Your task to perform on an android device: Open Google Chrome and click the shortcut for Amazon.com Image 0: 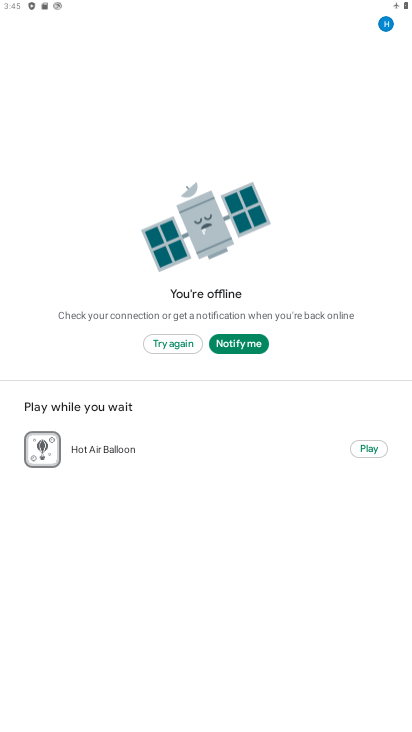
Step 0: press home button
Your task to perform on an android device: Open Google Chrome and click the shortcut for Amazon.com Image 1: 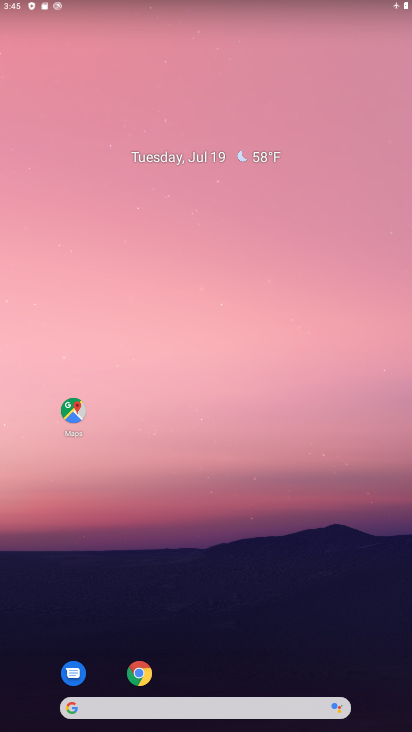
Step 1: click (146, 669)
Your task to perform on an android device: Open Google Chrome and click the shortcut for Amazon.com Image 2: 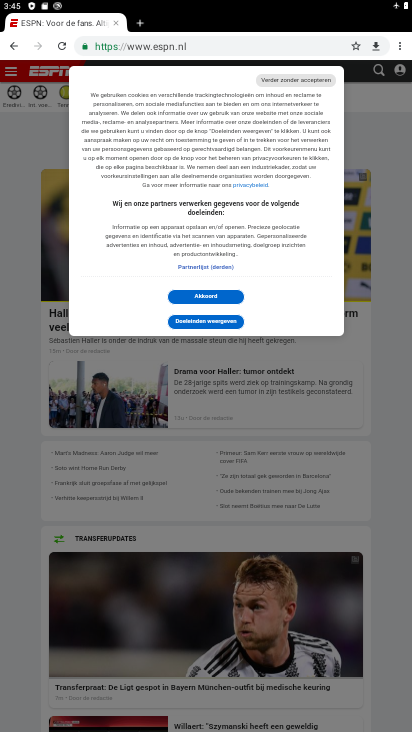
Step 2: click (374, 79)
Your task to perform on an android device: Open Google Chrome and click the shortcut for Amazon.com Image 3: 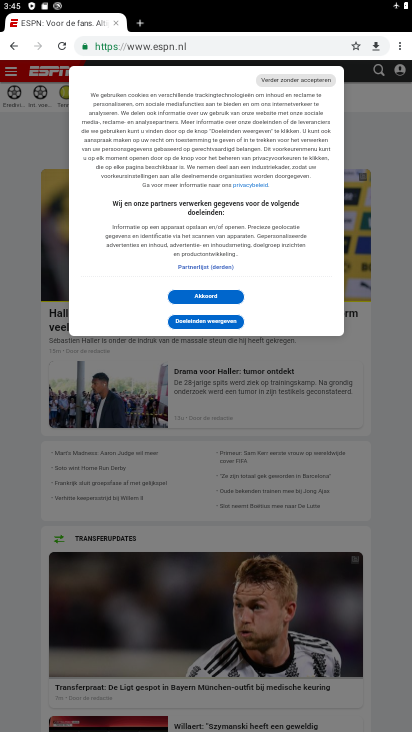
Step 3: click (139, 24)
Your task to perform on an android device: Open Google Chrome and click the shortcut for Amazon.com Image 4: 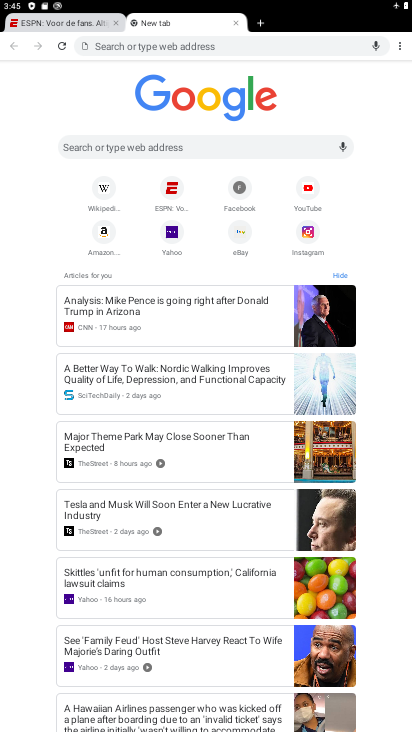
Step 4: click (100, 229)
Your task to perform on an android device: Open Google Chrome and click the shortcut for Amazon.com Image 5: 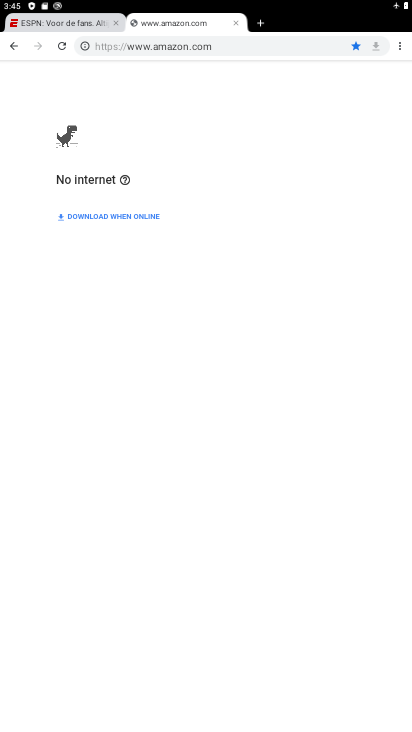
Step 5: task complete